Your task to perform on an android device: Open the Play Movies app and select the watchlist tab. Image 0: 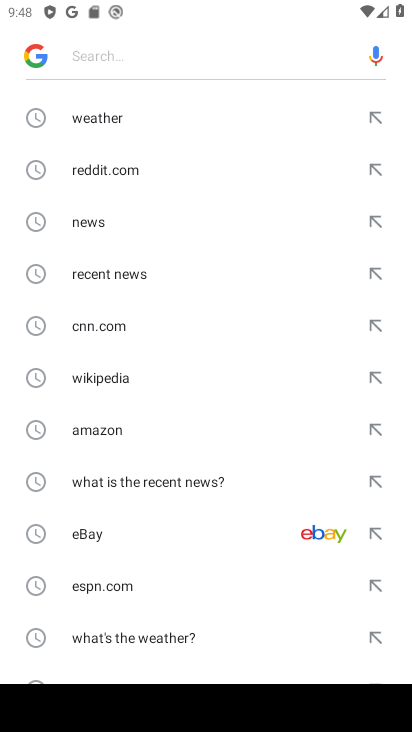
Step 0: press back button
Your task to perform on an android device: Open the Play Movies app and select the watchlist tab. Image 1: 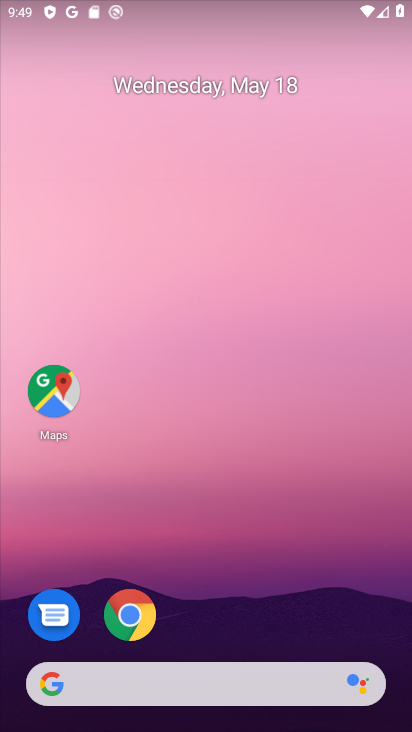
Step 1: drag from (280, 618) to (257, 77)
Your task to perform on an android device: Open the Play Movies app and select the watchlist tab. Image 2: 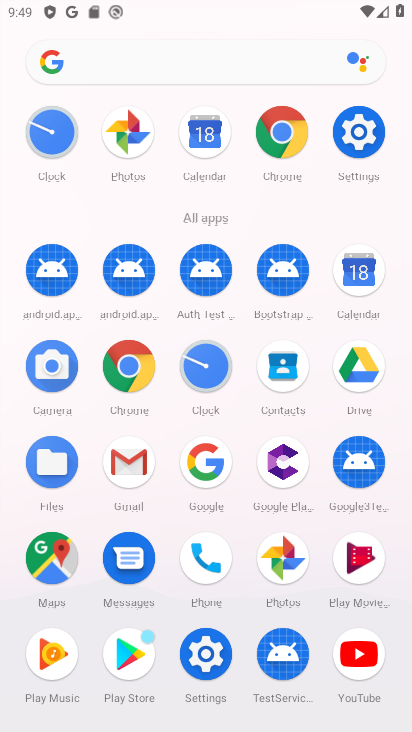
Step 2: click (375, 551)
Your task to perform on an android device: Open the Play Movies app and select the watchlist tab. Image 3: 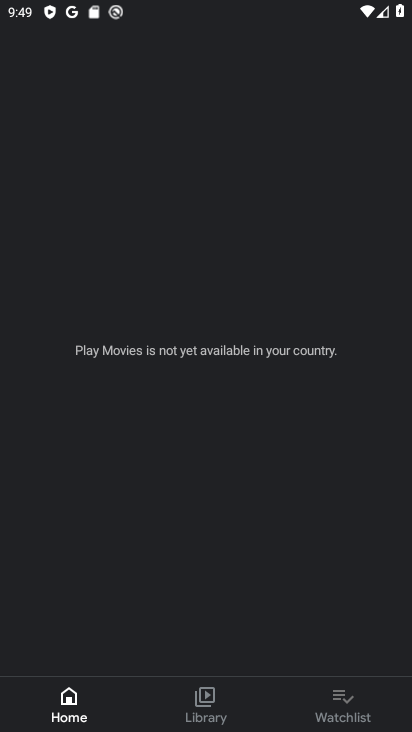
Step 3: click (347, 691)
Your task to perform on an android device: Open the Play Movies app and select the watchlist tab. Image 4: 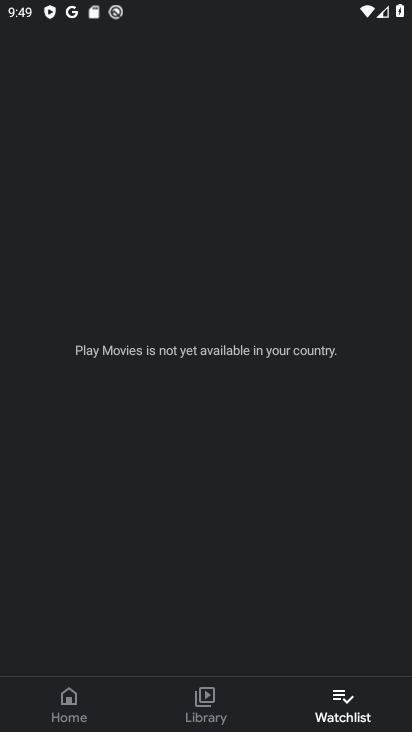
Step 4: task complete